Your task to perform on an android device: See recent photos Image 0: 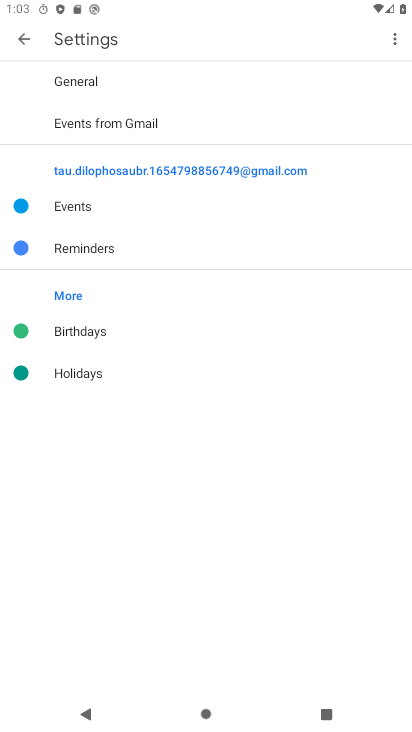
Step 0: press home button
Your task to perform on an android device: See recent photos Image 1: 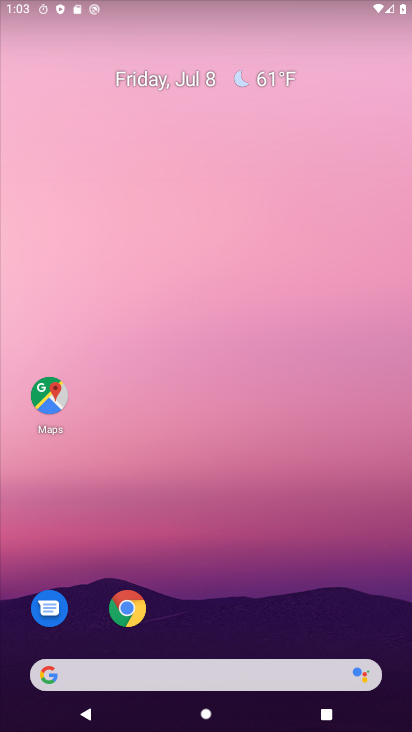
Step 1: drag from (240, 613) to (336, 77)
Your task to perform on an android device: See recent photos Image 2: 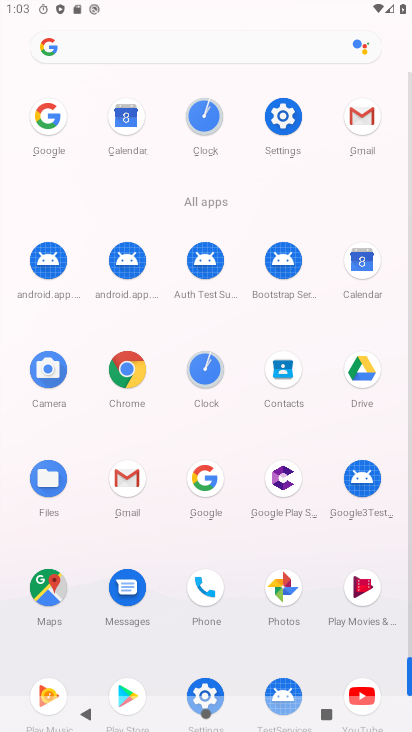
Step 2: click (282, 587)
Your task to perform on an android device: See recent photos Image 3: 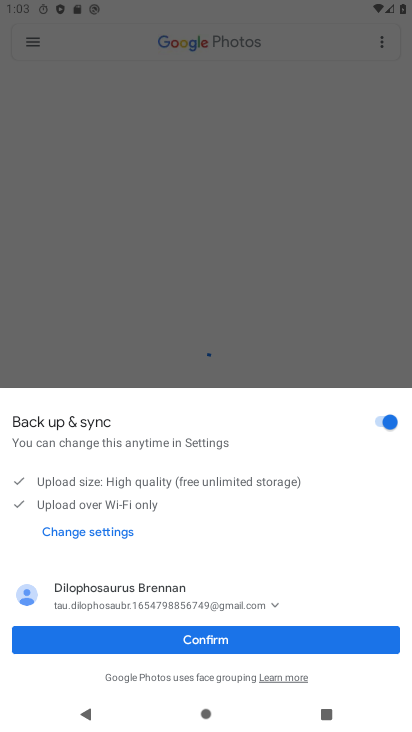
Step 3: click (196, 639)
Your task to perform on an android device: See recent photos Image 4: 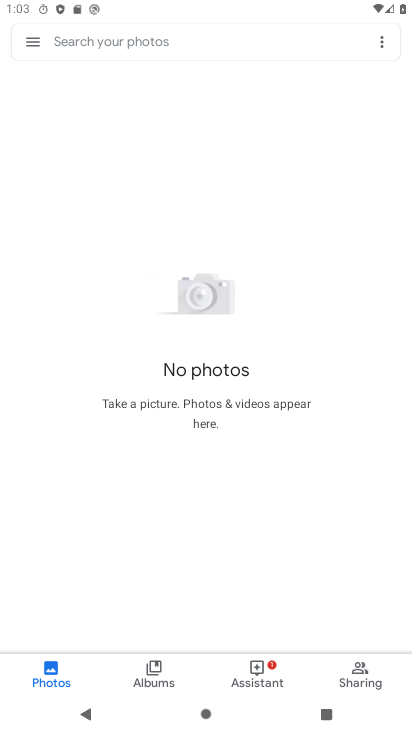
Step 4: task complete